Your task to perform on an android device: Open the calendar and show me this week's events Image 0: 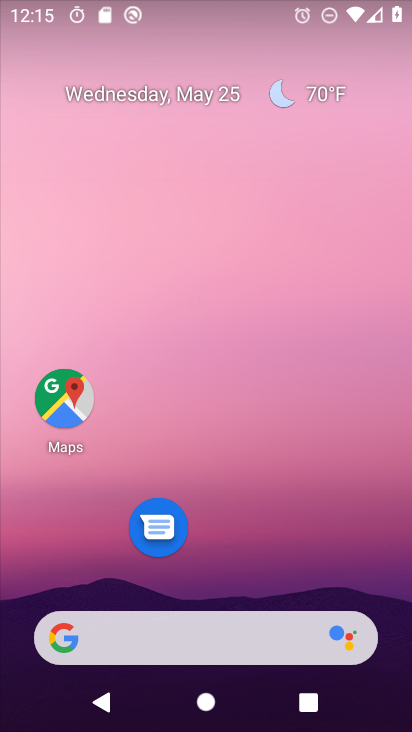
Step 0: drag from (261, 553) to (245, 82)
Your task to perform on an android device: Open the calendar and show me this week's events Image 1: 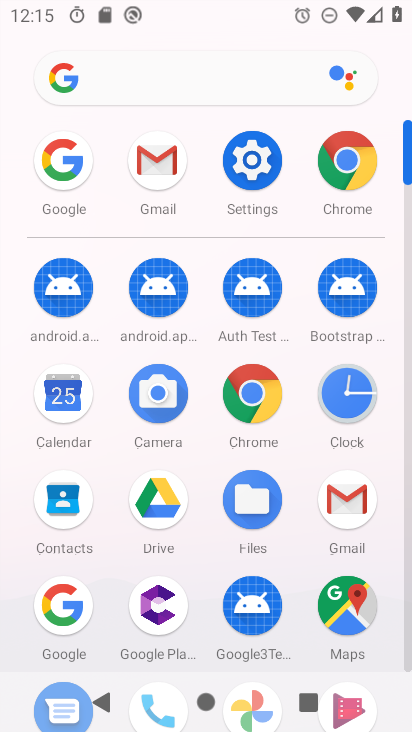
Step 1: click (66, 398)
Your task to perform on an android device: Open the calendar and show me this week's events Image 2: 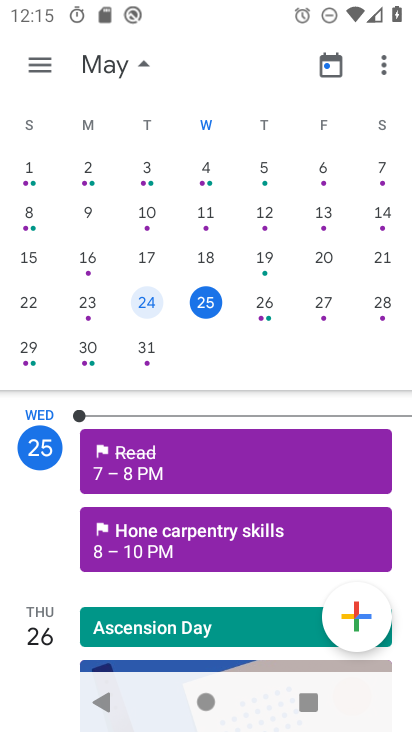
Step 2: click (325, 295)
Your task to perform on an android device: Open the calendar and show me this week's events Image 3: 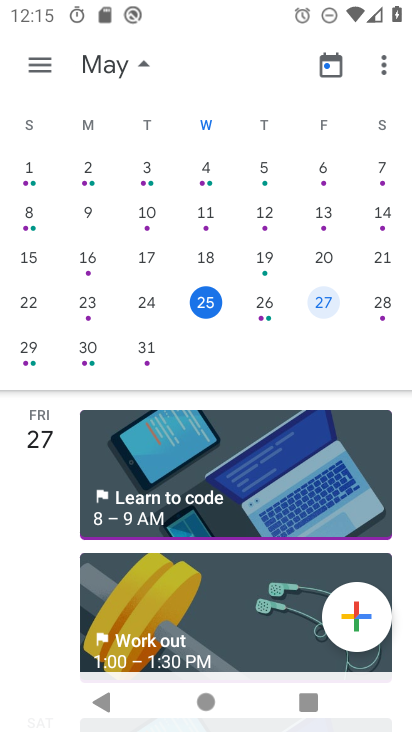
Step 3: task complete